Your task to perform on an android device: toggle wifi Image 0: 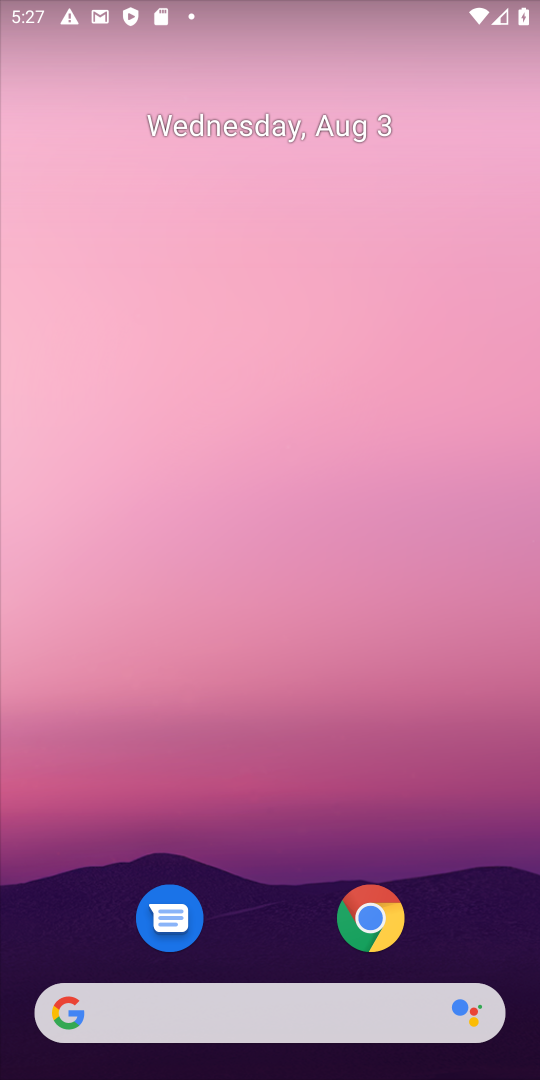
Step 0: drag from (266, 1001) to (323, 260)
Your task to perform on an android device: toggle wifi Image 1: 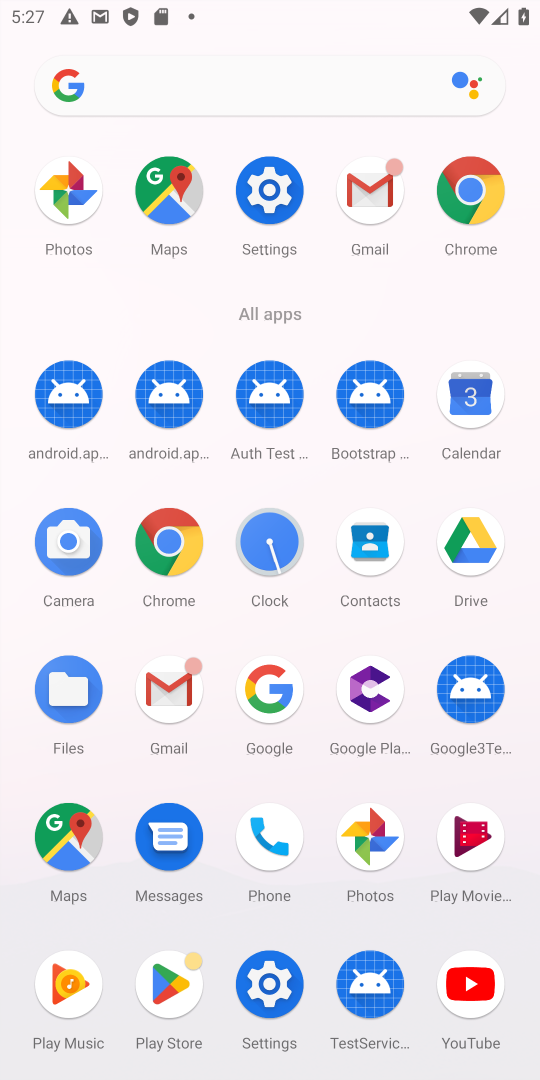
Step 1: click (252, 213)
Your task to perform on an android device: toggle wifi Image 2: 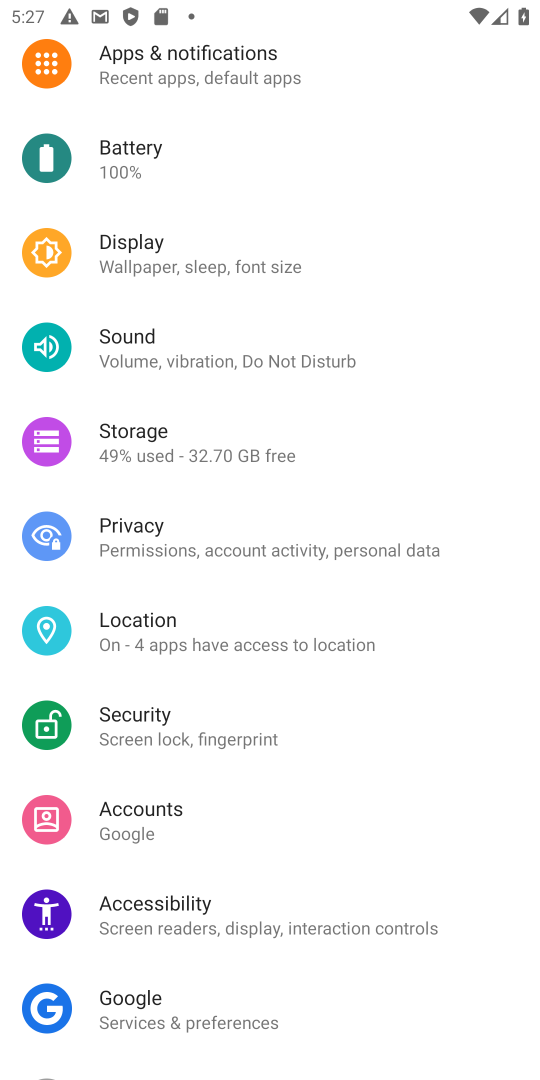
Step 2: drag from (203, 174) to (224, 816)
Your task to perform on an android device: toggle wifi Image 3: 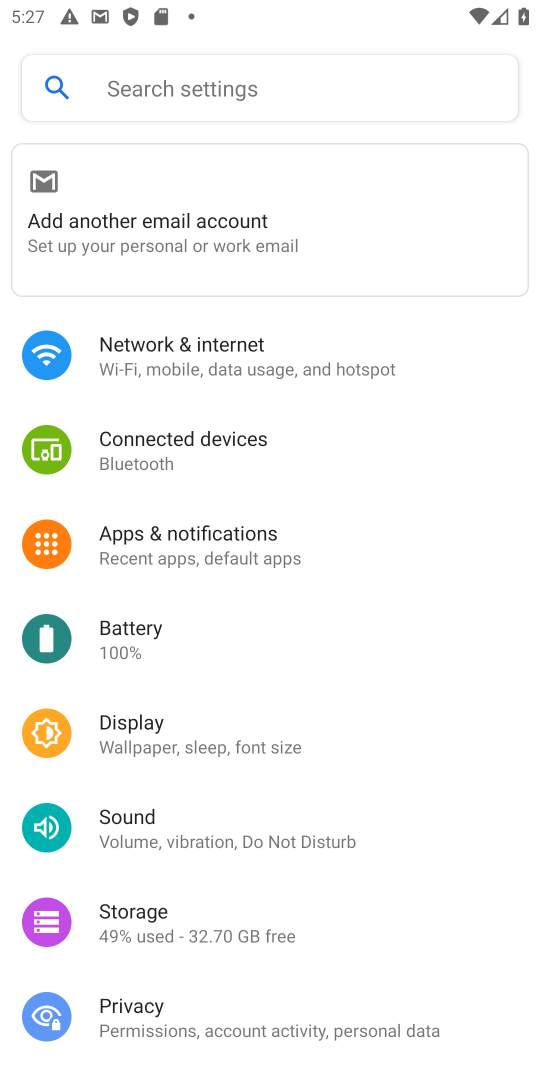
Step 3: click (236, 357)
Your task to perform on an android device: toggle wifi Image 4: 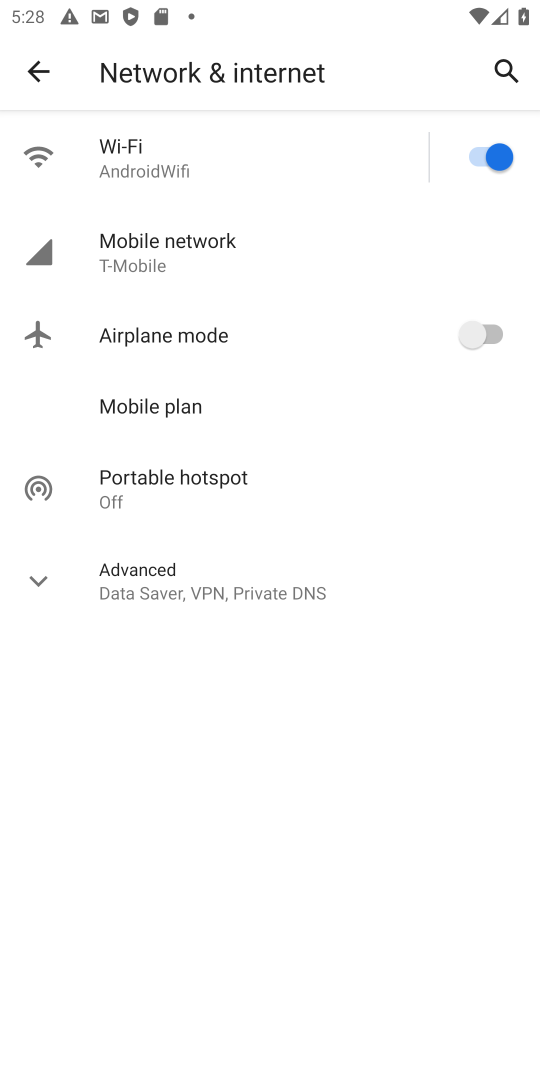
Step 4: click (510, 160)
Your task to perform on an android device: toggle wifi Image 5: 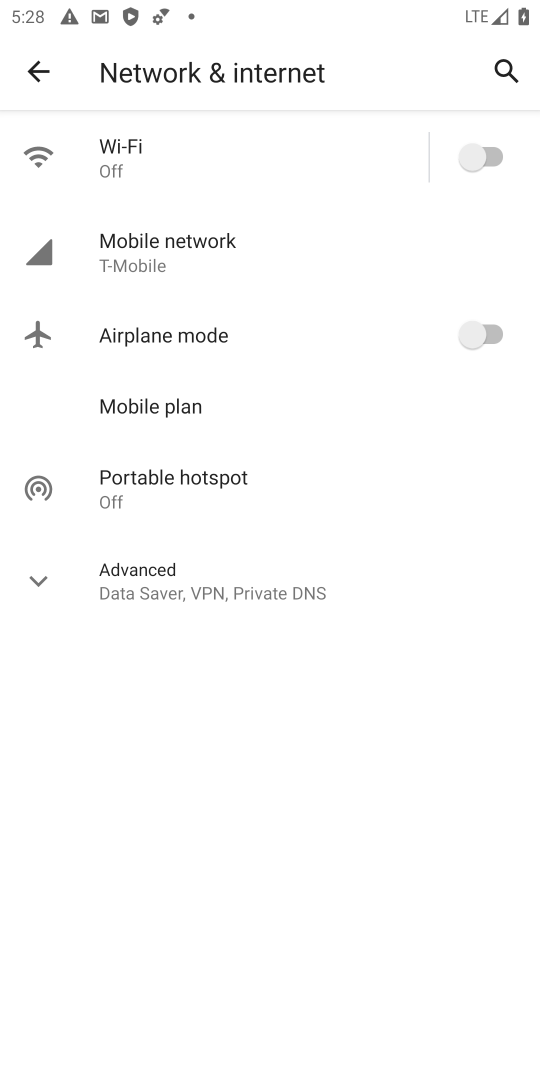
Step 5: task complete